Your task to perform on an android device: change text size in settings app Image 0: 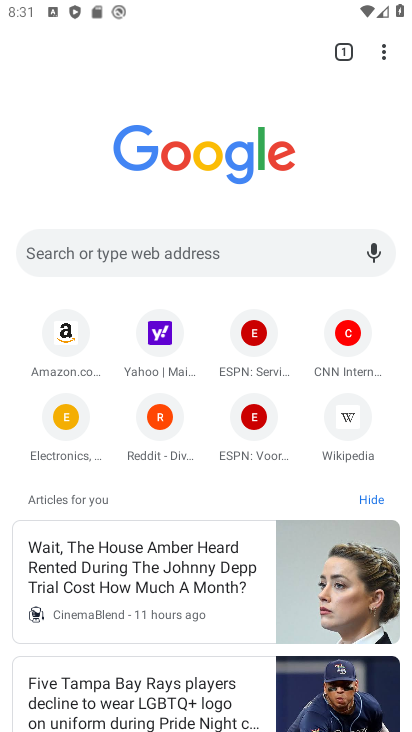
Step 0: press home button
Your task to perform on an android device: change text size in settings app Image 1: 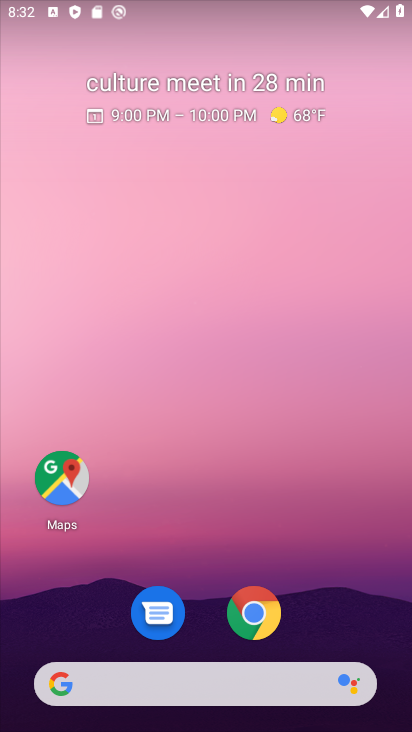
Step 1: drag from (393, 689) to (318, 8)
Your task to perform on an android device: change text size in settings app Image 2: 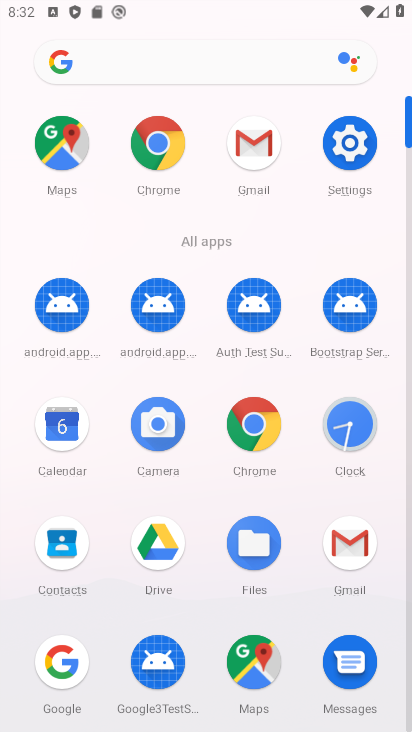
Step 2: click (365, 150)
Your task to perform on an android device: change text size in settings app Image 3: 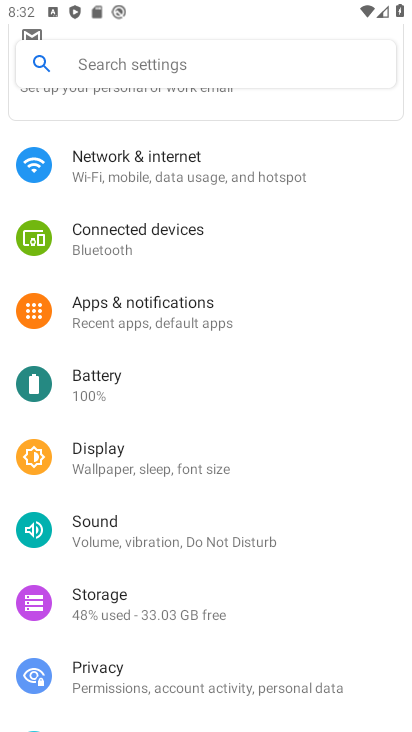
Step 3: click (126, 444)
Your task to perform on an android device: change text size in settings app Image 4: 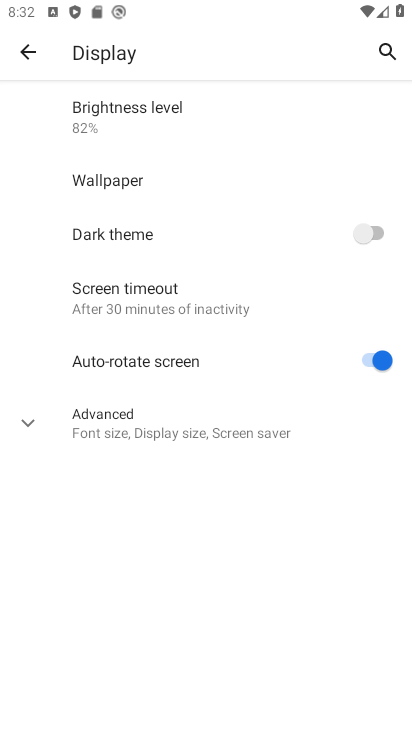
Step 4: click (110, 416)
Your task to perform on an android device: change text size in settings app Image 5: 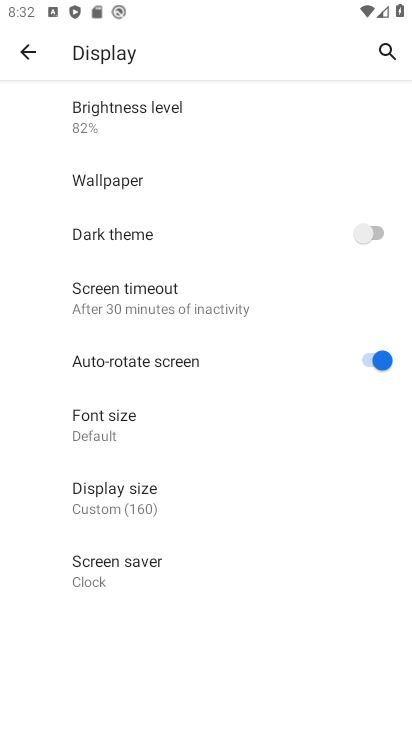
Step 5: click (93, 413)
Your task to perform on an android device: change text size in settings app Image 6: 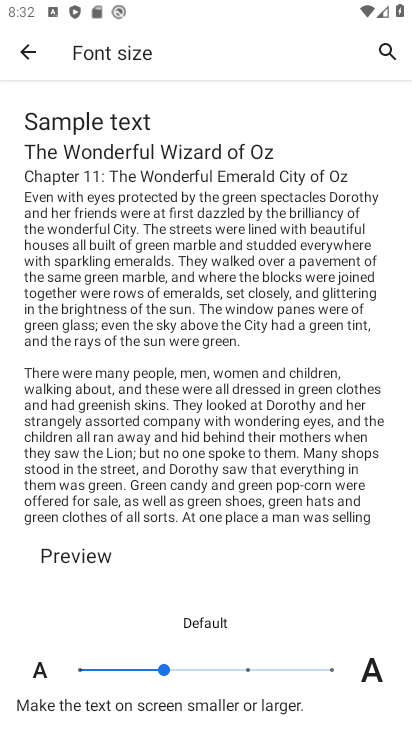
Step 6: click (246, 669)
Your task to perform on an android device: change text size in settings app Image 7: 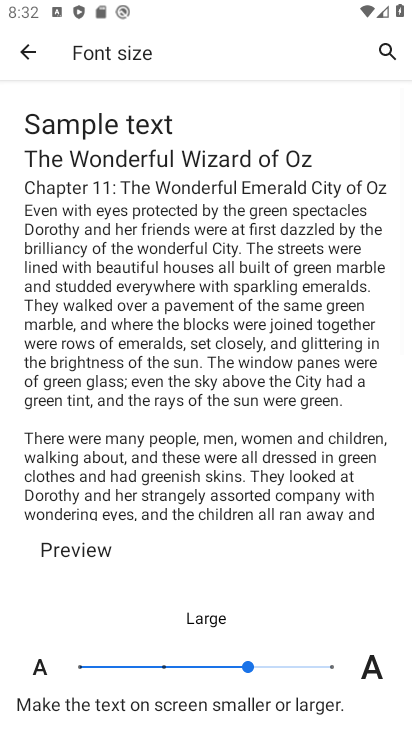
Step 7: click (78, 669)
Your task to perform on an android device: change text size in settings app Image 8: 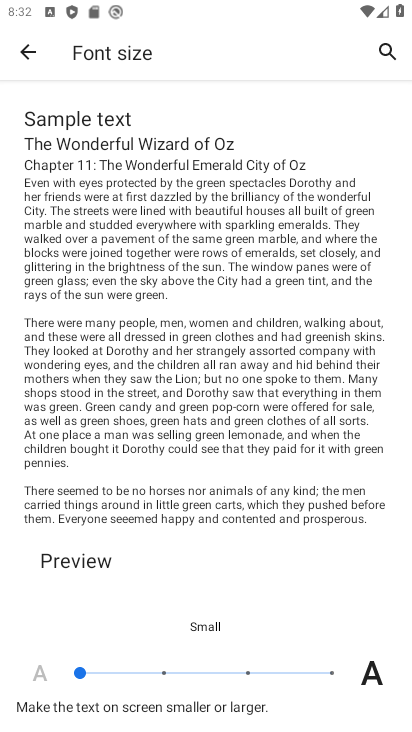
Step 8: task complete